Your task to perform on an android device: Go to Android settings Image 0: 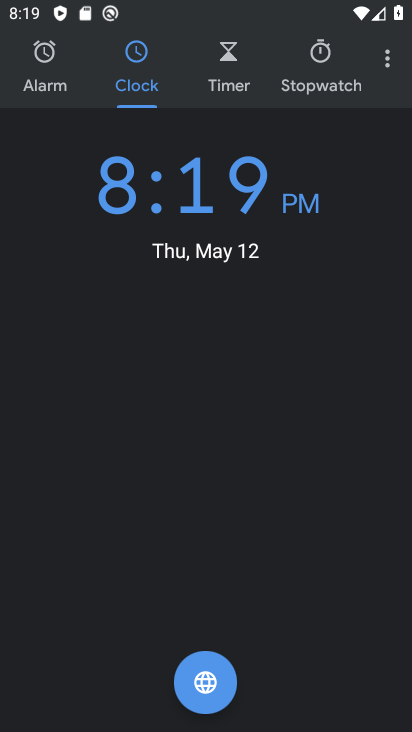
Step 0: press home button
Your task to perform on an android device: Go to Android settings Image 1: 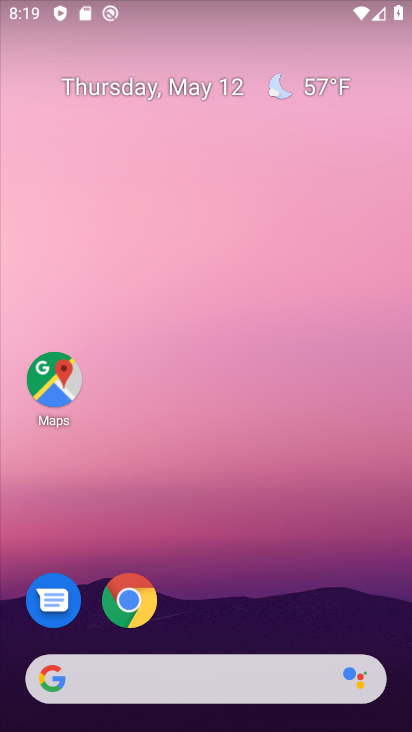
Step 1: drag from (323, 572) to (312, 94)
Your task to perform on an android device: Go to Android settings Image 2: 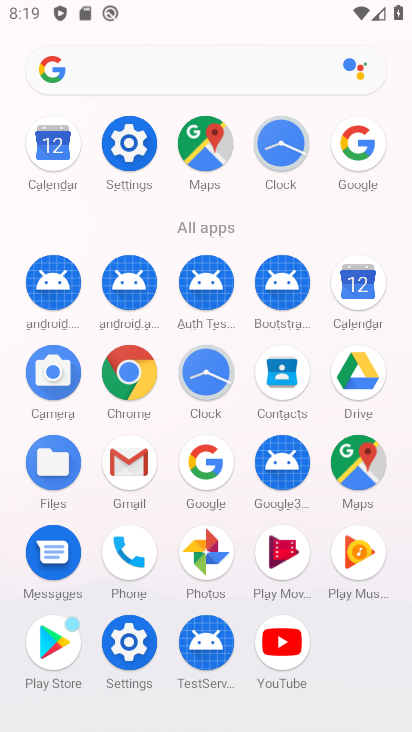
Step 2: click (114, 144)
Your task to perform on an android device: Go to Android settings Image 3: 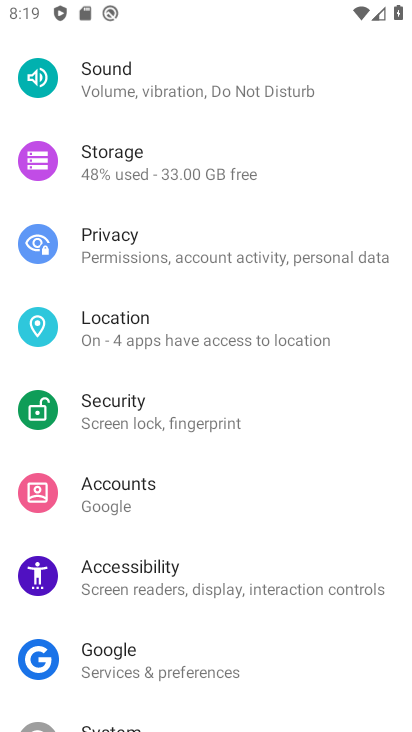
Step 3: drag from (302, 596) to (340, 82)
Your task to perform on an android device: Go to Android settings Image 4: 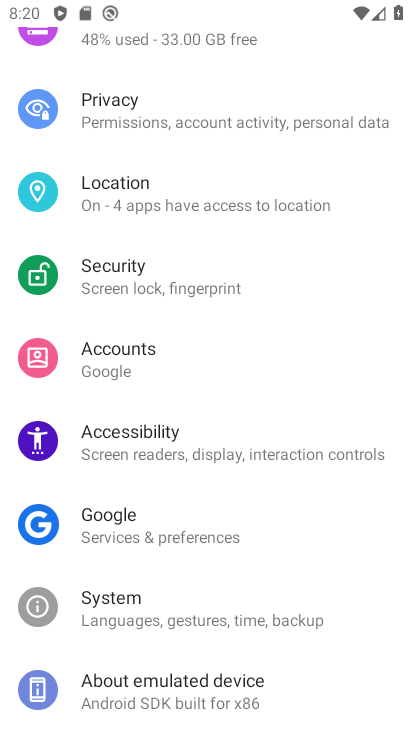
Step 4: click (176, 678)
Your task to perform on an android device: Go to Android settings Image 5: 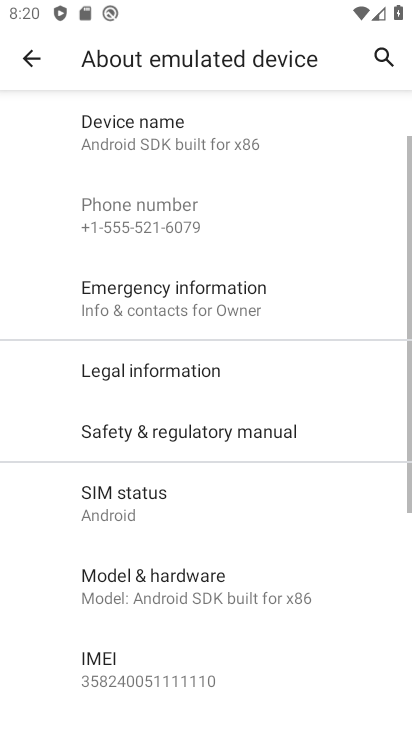
Step 5: task complete